Your task to perform on an android device: delete a single message in the gmail app Image 0: 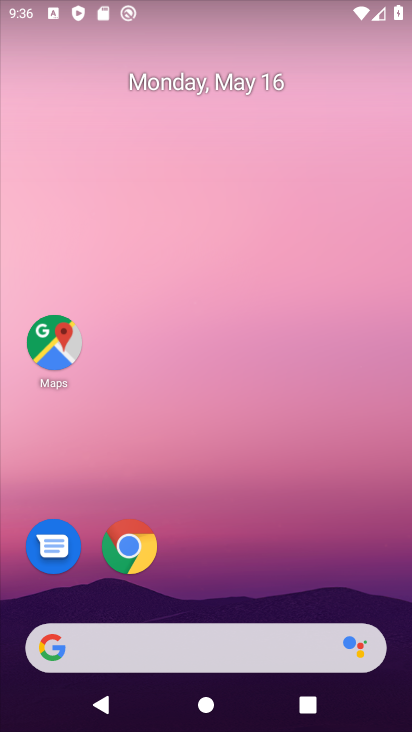
Step 0: drag from (235, 595) to (293, 106)
Your task to perform on an android device: delete a single message in the gmail app Image 1: 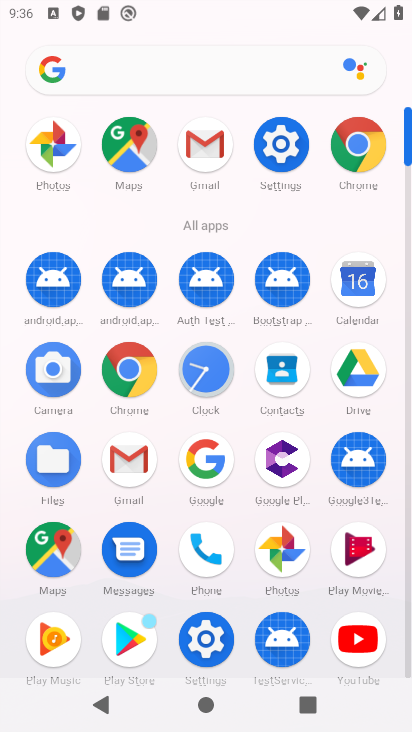
Step 1: click (211, 147)
Your task to perform on an android device: delete a single message in the gmail app Image 2: 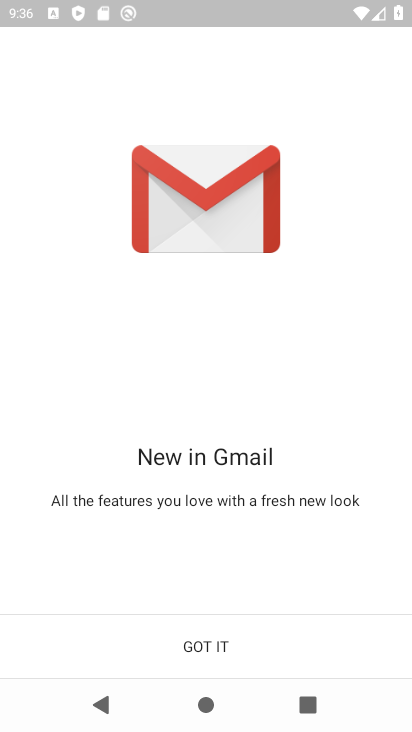
Step 2: click (132, 663)
Your task to perform on an android device: delete a single message in the gmail app Image 3: 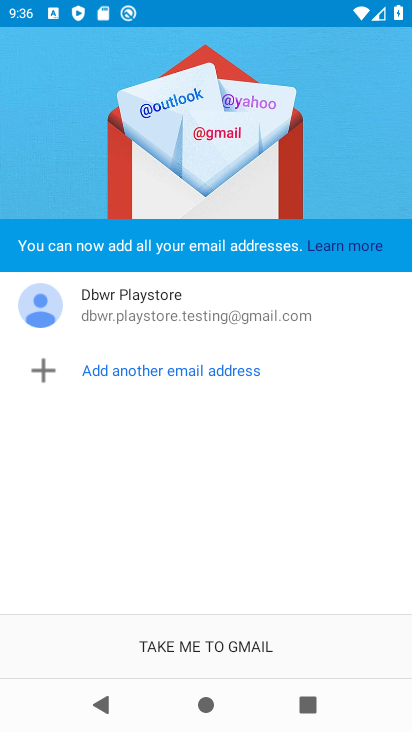
Step 3: click (132, 663)
Your task to perform on an android device: delete a single message in the gmail app Image 4: 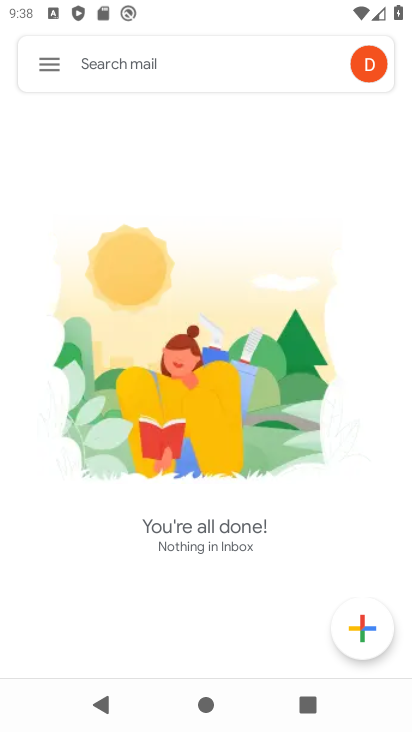
Step 4: task complete